Your task to perform on an android device: Open Amazon Image 0: 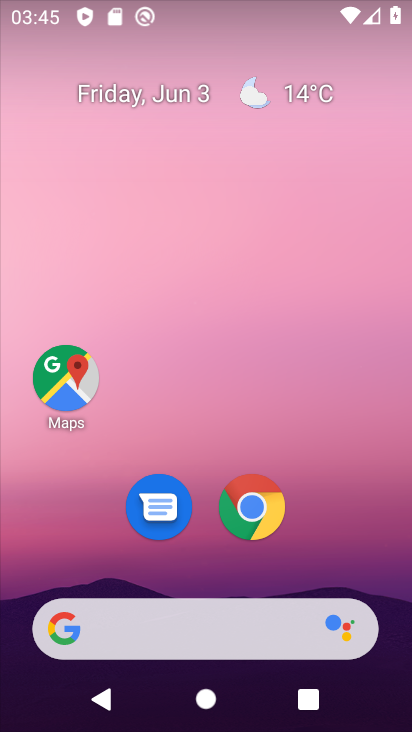
Step 0: press home button
Your task to perform on an android device: Open Amazon Image 1: 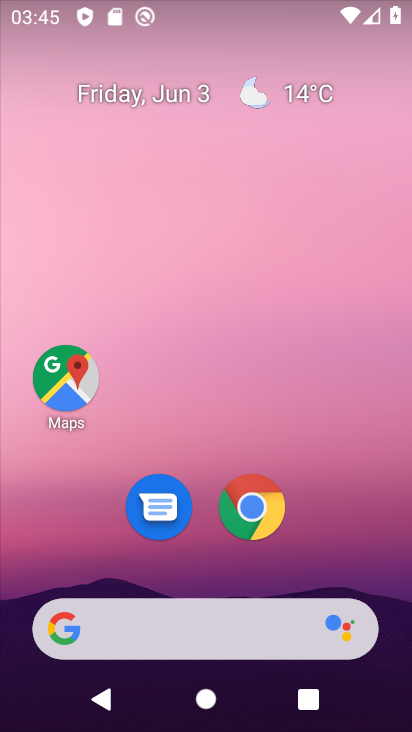
Step 1: click (61, 636)
Your task to perform on an android device: Open Amazon Image 2: 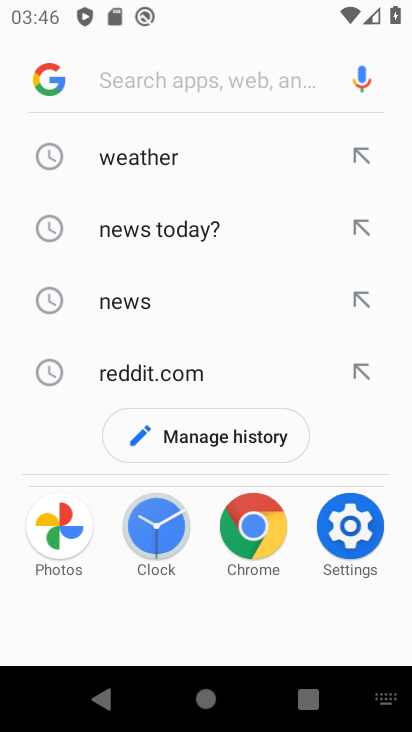
Step 2: type "Amazon"
Your task to perform on an android device: Open Amazon Image 3: 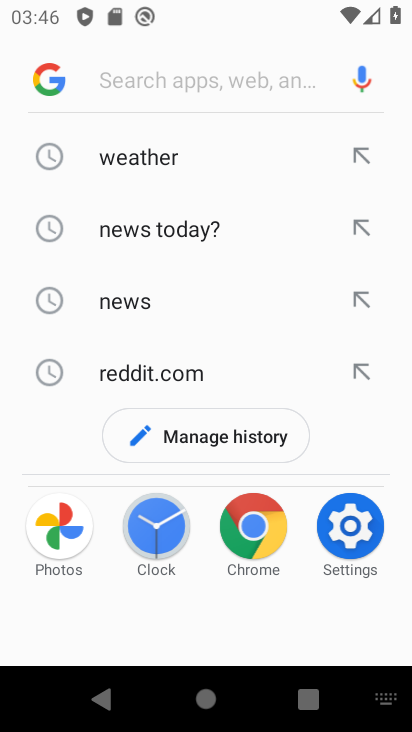
Step 3: click (186, 94)
Your task to perform on an android device: Open Amazon Image 4: 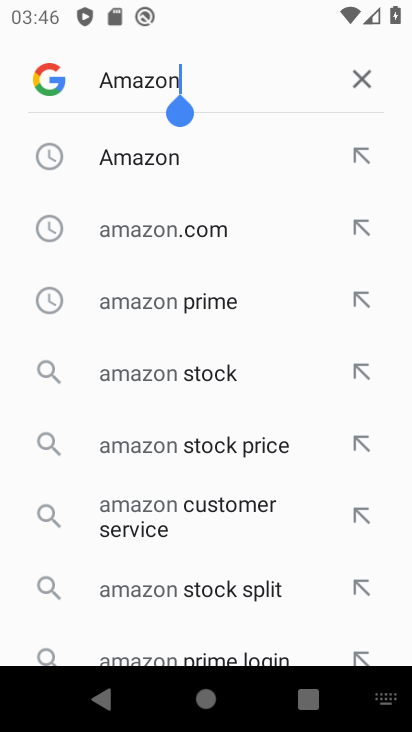
Step 4: click (156, 166)
Your task to perform on an android device: Open Amazon Image 5: 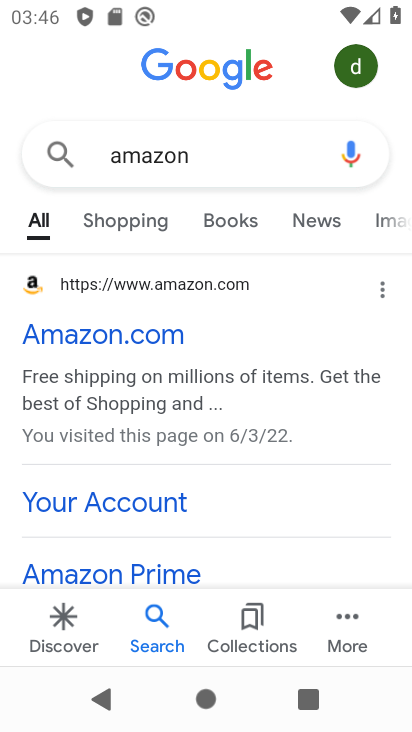
Step 5: click (96, 343)
Your task to perform on an android device: Open Amazon Image 6: 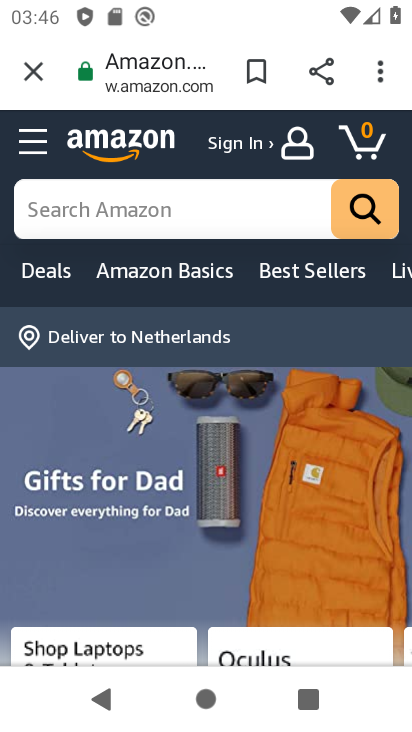
Step 6: task complete